Your task to perform on an android device: check the backup settings in the google photos Image 0: 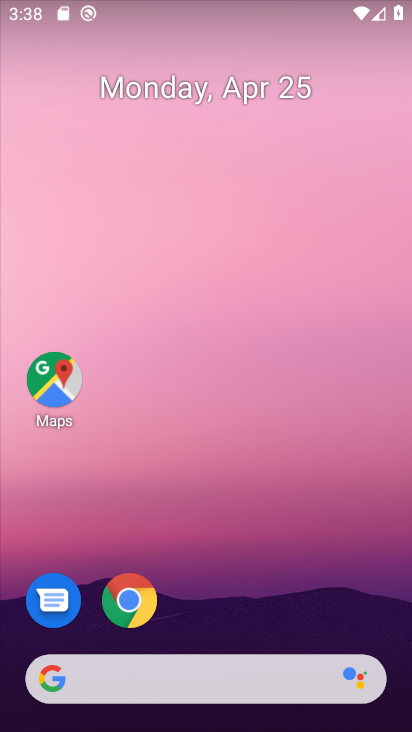
Step 0: drag from (202, 612) to (264, 63)
Your task to perform on an android device: check the backup settings in the google photos Image 1: 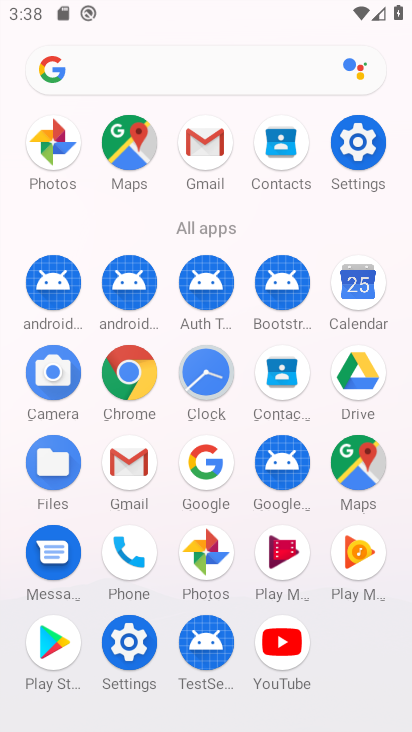
Step 1: click (208, 541)
Your task to perform on an android device: check the backup settings in the google photos Image 2: 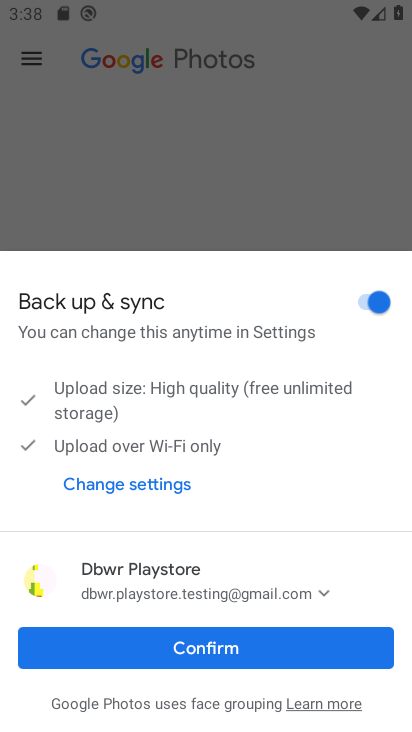
Step 2: click (170, 642)
Your task to perform on an android device: check the backup settings in the google photos Image 3: 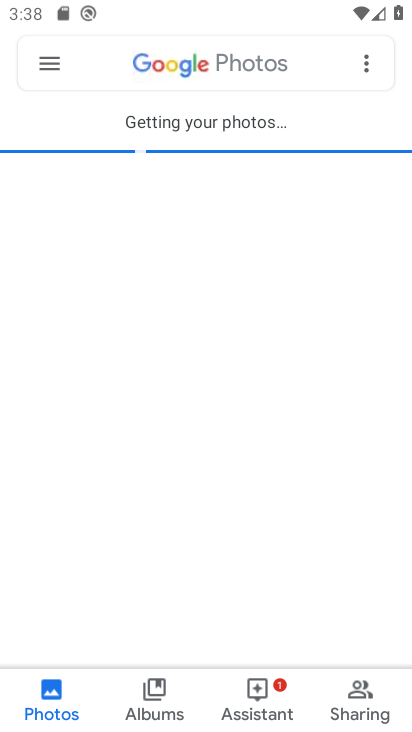
Step 3: click (50, 70)
Your task to perform on an android device: check the backup settings in the google photos Image 4: 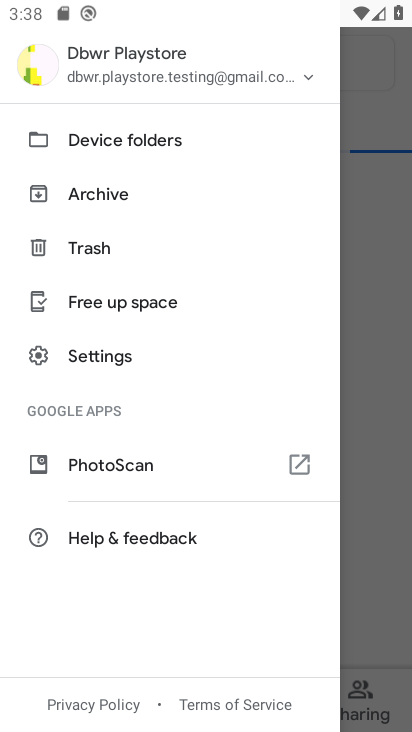
Step 4: click (91, 347)
Your task to perform on an android device: check the backup settings in the google photos Image 5: 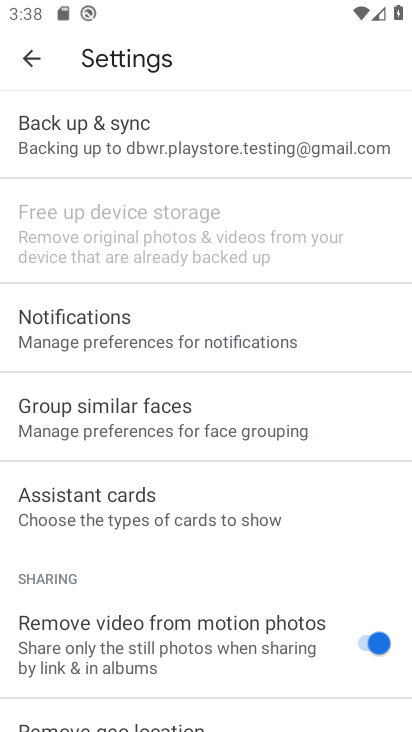
Step 5: click (154, 152)
Your task to perform on an android device: check the backup settings in the google photos Image 6: 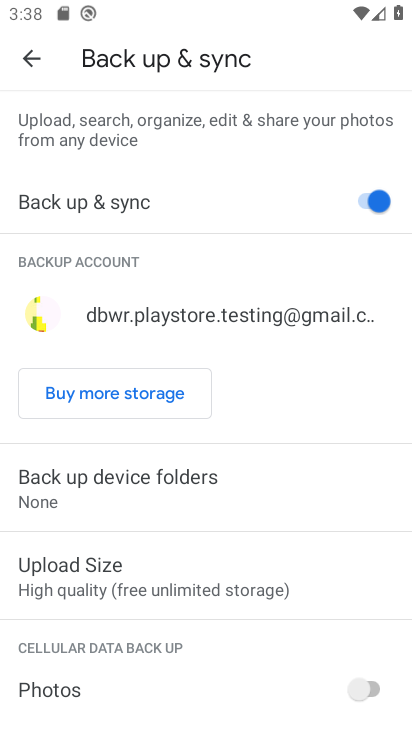
Step 6: task complete